Your task to perform on an android device: Show me productivity apps on the Play Store Image 0: 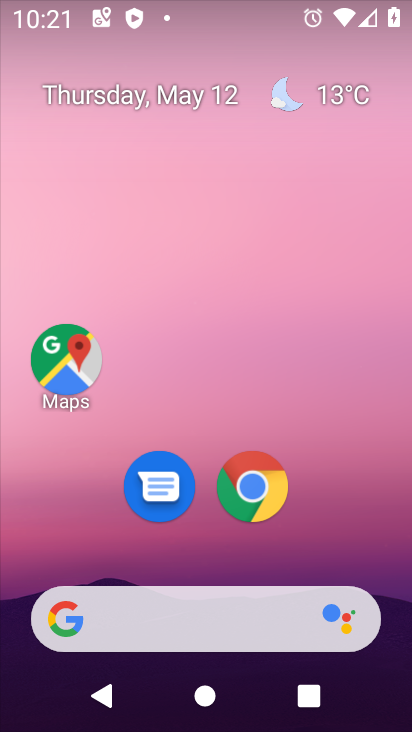
Step 0: drag from (363, 474) to (249, 121)
Your task to perform on an android device: Show me productivity apps on the Play Store Image 1: 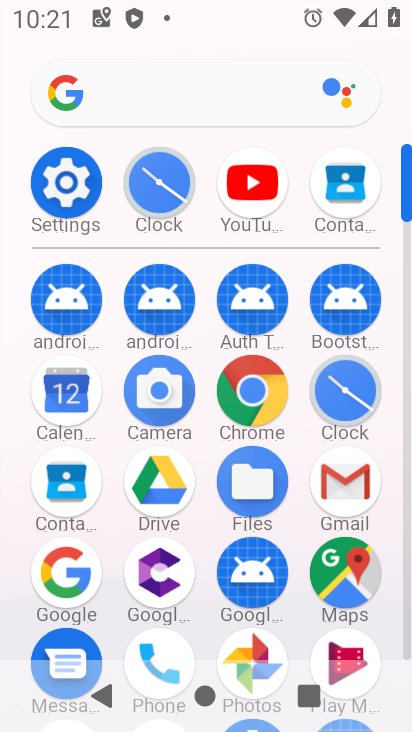
Step 1: drag from (288, 258) to (234, 35)
Your task to perform on an android device: Show me productivity apps on the Play Store Image 2: 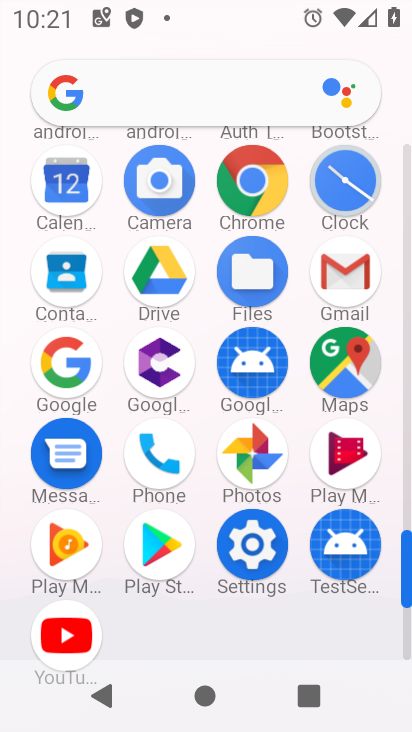
Step 2: click (169, 535)
Your task to perform on an android device: Show me productivity apps on the Play Store Image 3: 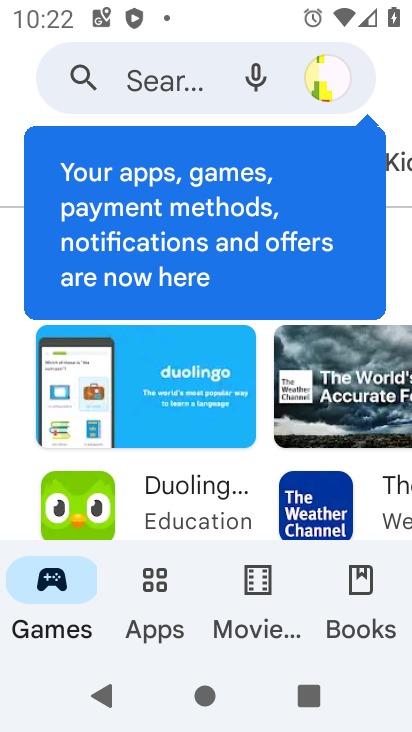
Step 3: click (170, 616)
Your task to perform on an android device: Show me productivity apps on the Play Store Image 4: 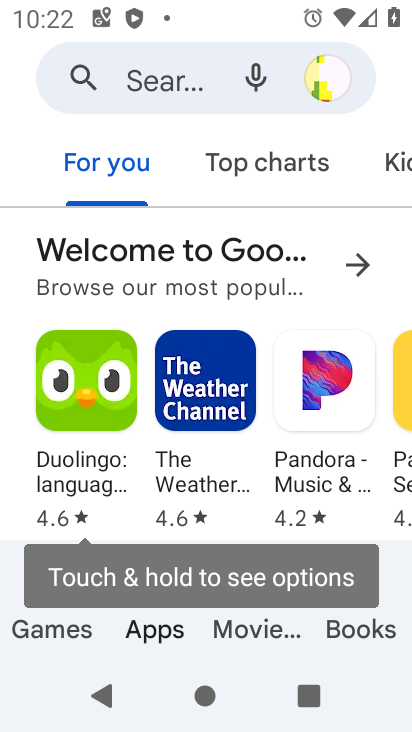
Step 4: click (163, 636)
Your task to perform on an android device: Show me productivity apps on the Play Store Image 5: 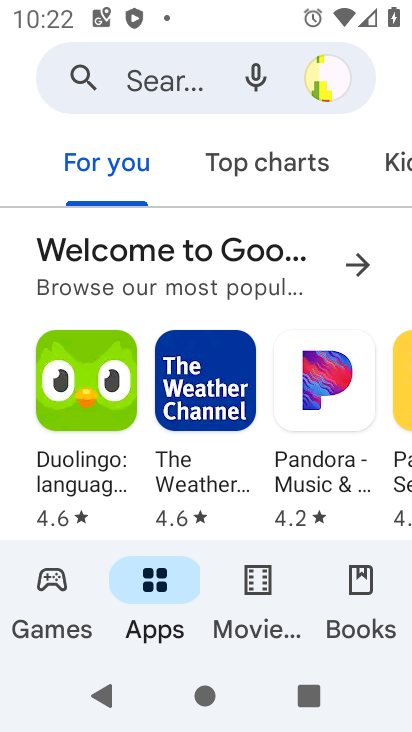
Step 5: click (152, 573)
Your task to perform on an android device: Show me productivity apps on the Play Store Image 6: 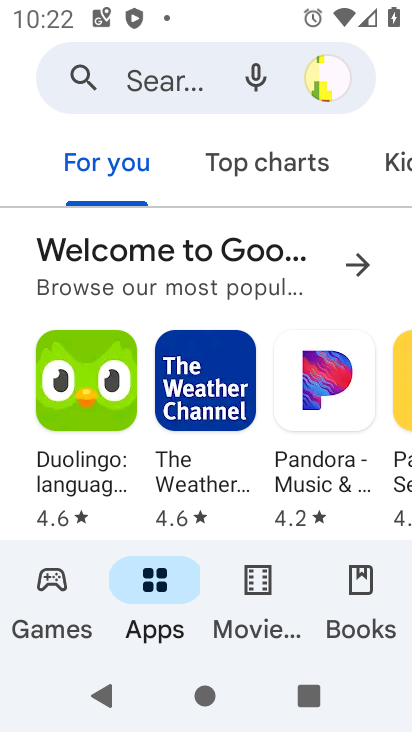
Step 6: click (245, 581)
Your task to perform on an android device: Show me productivity apps on the Play Store Image 7: 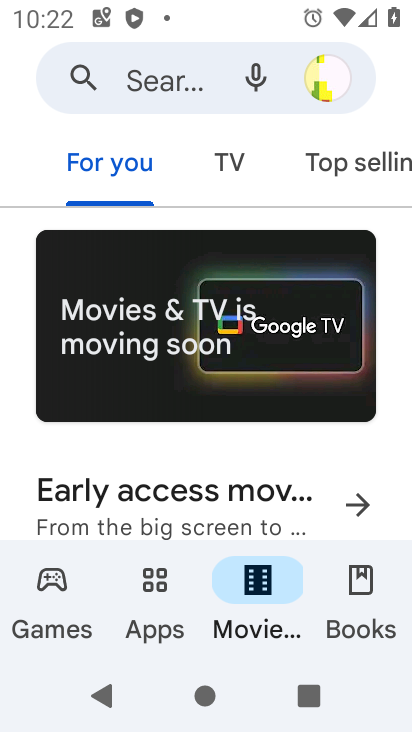
Step 7: click (139, 577)
Your task to perform on an android device: Show me productivity apps on the Play Store Image 8: 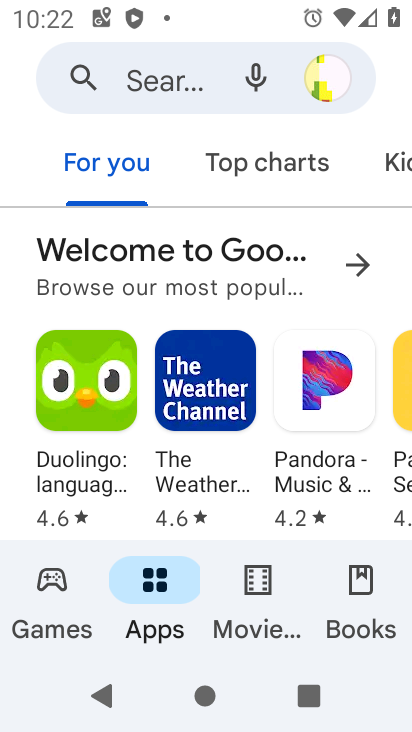
Step 8: drag from (323, 142) to (103, 129)
Your task to perform on an android device: Show me productivity apps on the Play Store Image 9: 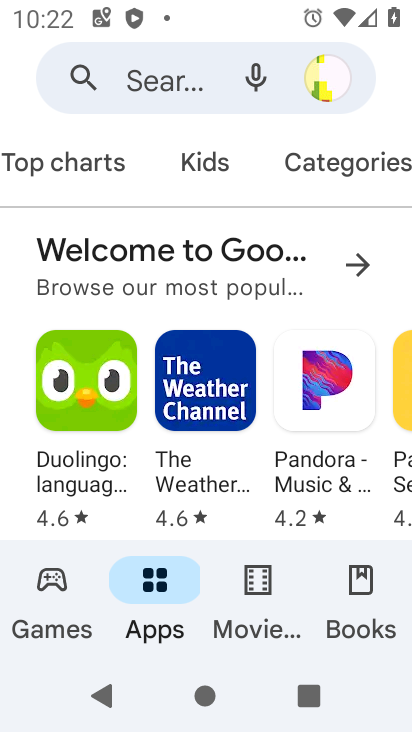
Step 9: click (292, 161)
Your task to perform on an android device: Show me productivity apps on the Play Store Image 10: 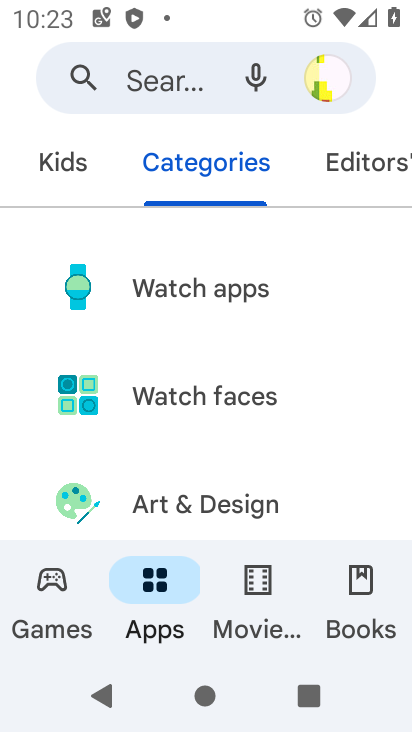
Step 10: drag from (309, 539) to (235, 224)
Your task to perform on an android device: Show me productivity apps on the Play Store Image 11: 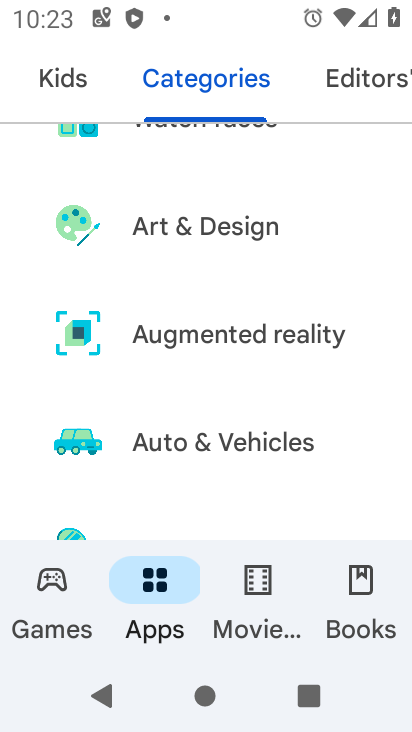
Step 11: drag from (303, 458) to (259, 176)
Your task to perform on an android device: Show me productivity apps on the Play Store Image 12: 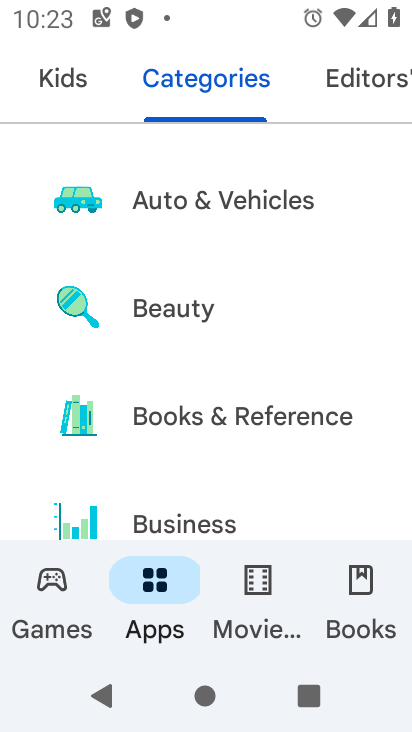
Step 12: drag from (304, 450) to (236, 88)
Your task to perform on an android device: Show me productivity apps on the Play Store Image 13: 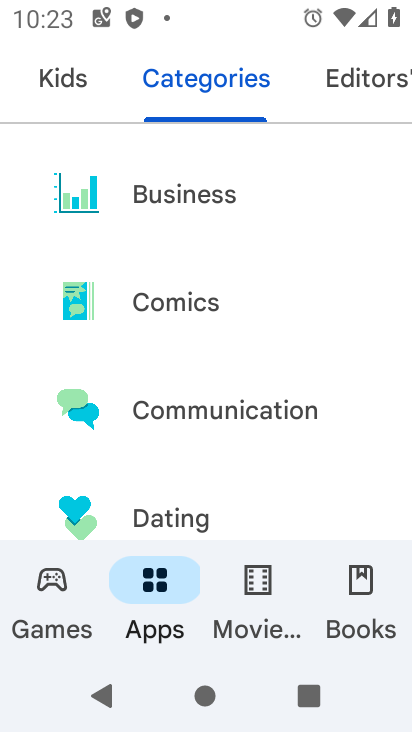
Step 13: drag from (270, 448) to (191, 164)
Your task to perform on an android device: Show me productivity apps on the Play Store Image 14: 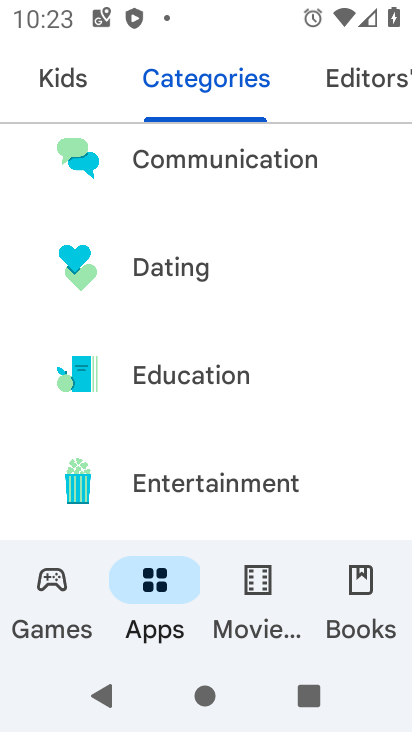
Step 14: drag from (269, 450) to (196, 257)
Your task to perform on an android device: Show me productivity apps on the Play Store Image 15: 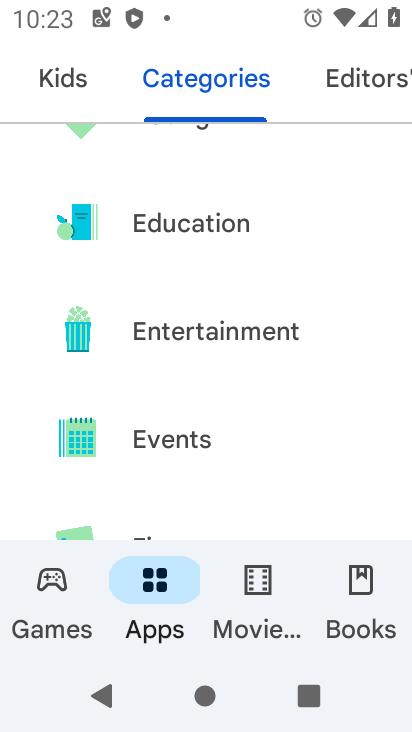
Step 15: drag from (326, 535) to (198, 175)
Your task to perform on an android device: Show me productivity apps on the Play Store Image 16: 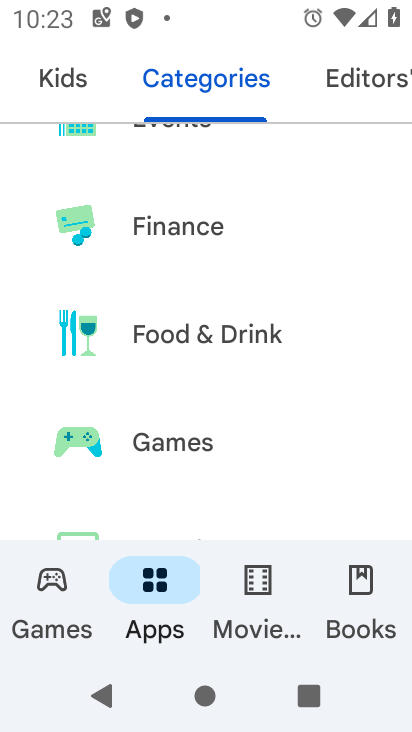
Step 16: drag from (300, 501) to (264, 317)
Your task to perform on an android device: Show me productivity apps on the Play Store Image 17: 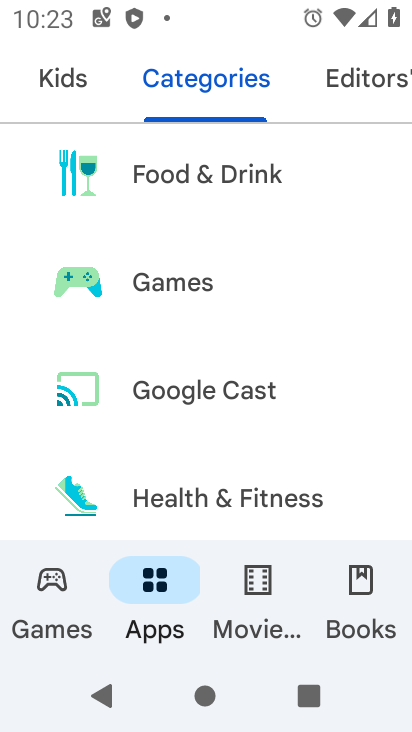
Step 17: drag from (289, 463) to (229, 222)
Your task to perform on an android device: Show me productivity apps on the Play Store Image 18: 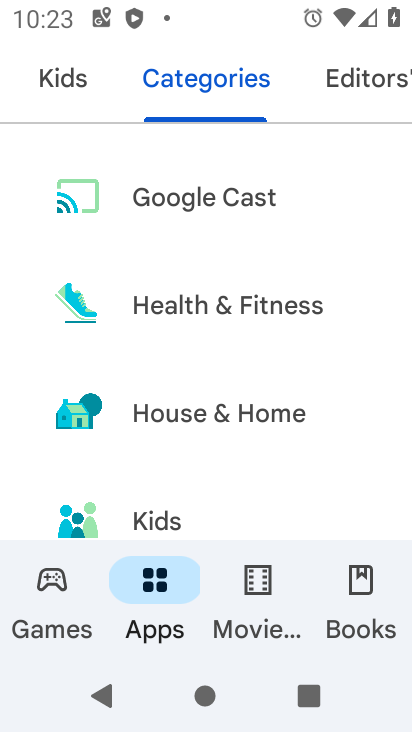
Step 18: drag from (289, 445) to (225, 117)
Your task to perform on an android device: Show me productivity apps on the Play Store Image 19: 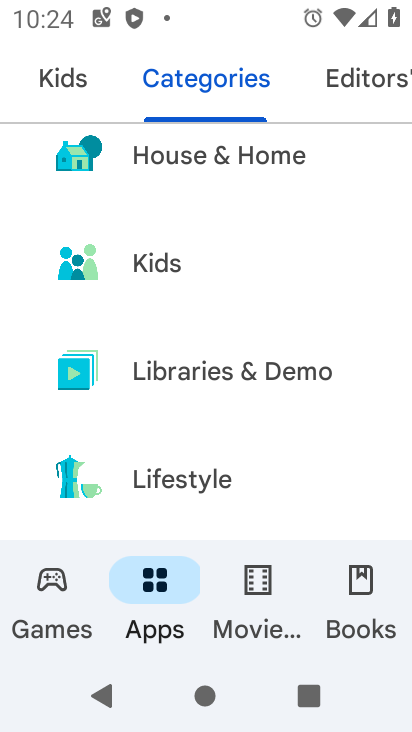
Step 19: drag from (301, 492) to (233, 153)
Your task to perform on an android device: Show me productivity apps on the Play Store Image 20: 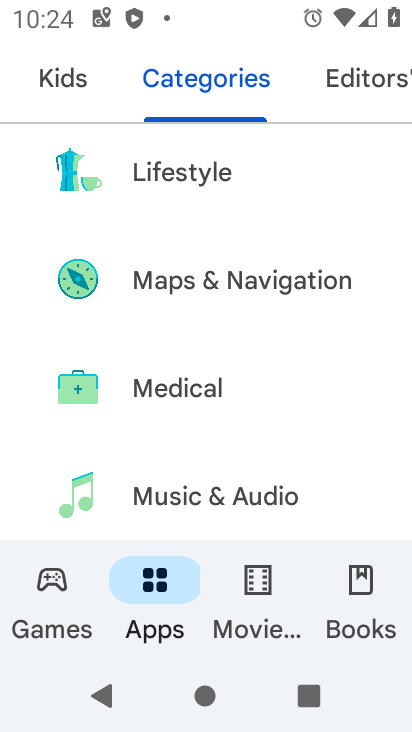
Step 20: drag from (296, 488) to (217, 170)
Your task to perform on an android device: Show me productivity apps on the Play Store Image 21: 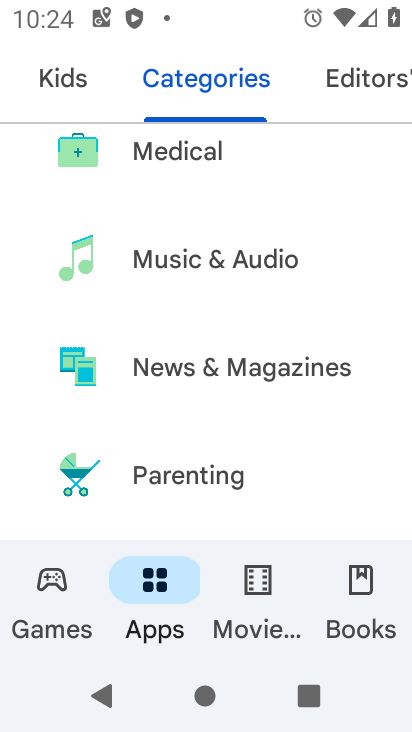
Step 21: drag from (291, 451) to (219, 185)
Your task to perform on an android device: Show me productivity apps on the Play Store Image 22: 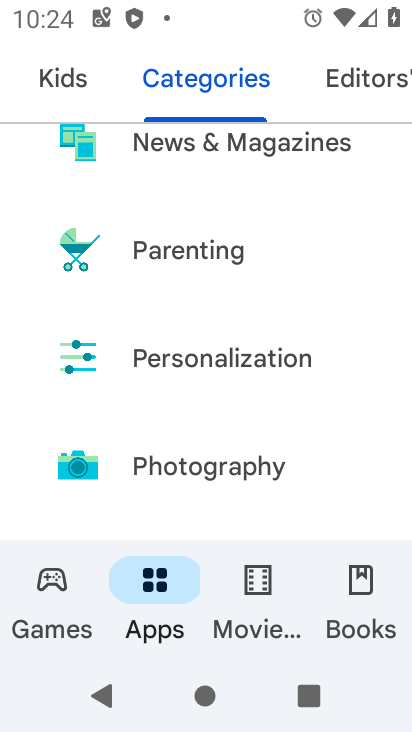
Step 22: drag from (281, 465) to (204, 145)
Your task to perform on an android device: Show me productivity apps on the Play Store Image 23: 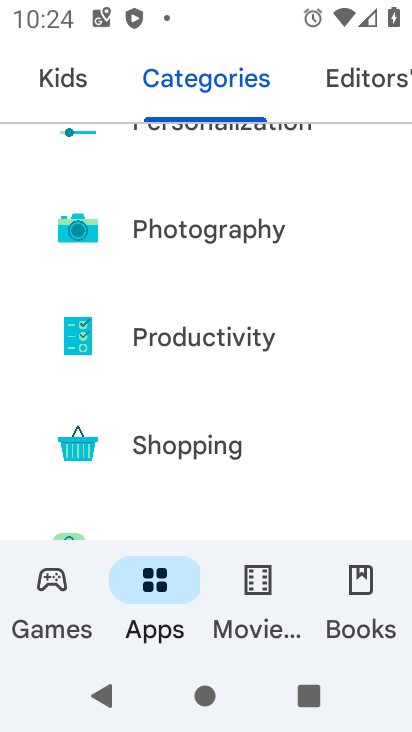
Step 23: click (248, 341)
Your task to perform on an android device: Show me productivity apps on the Play Store Image 24: 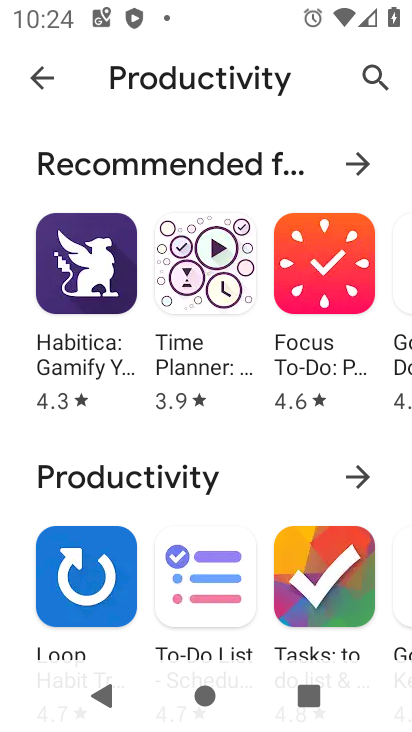
Step 24: task complete